Your task to perform on an android device: check battery use Image 0: 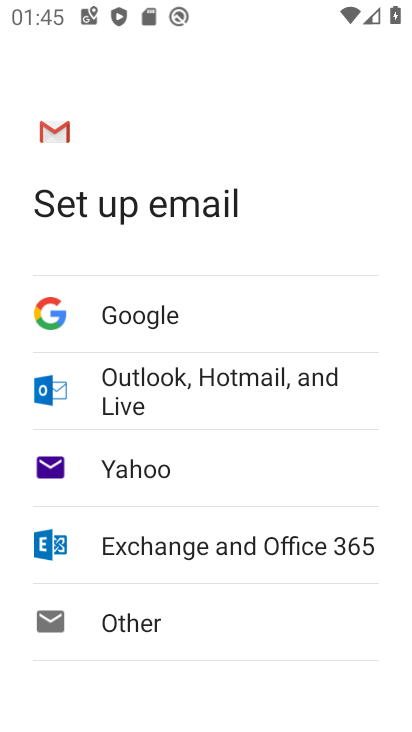
Step 0: press home button
Your task to perform on an android device: check battery use Image 1: 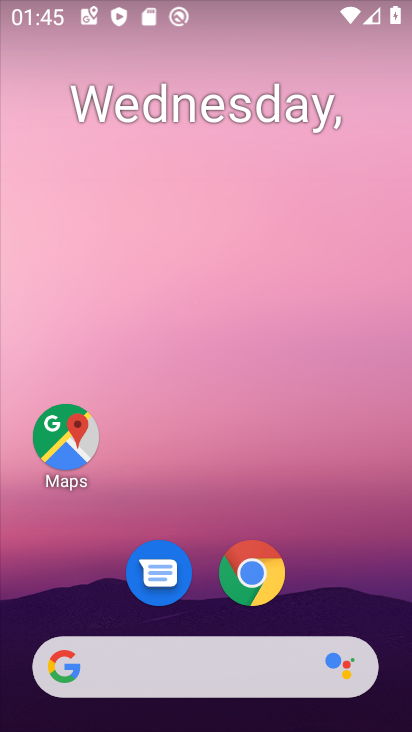
Step 1: drag from (340, 566) to (302, 24)
Your task to perform on an android device: check battery use Image 2: 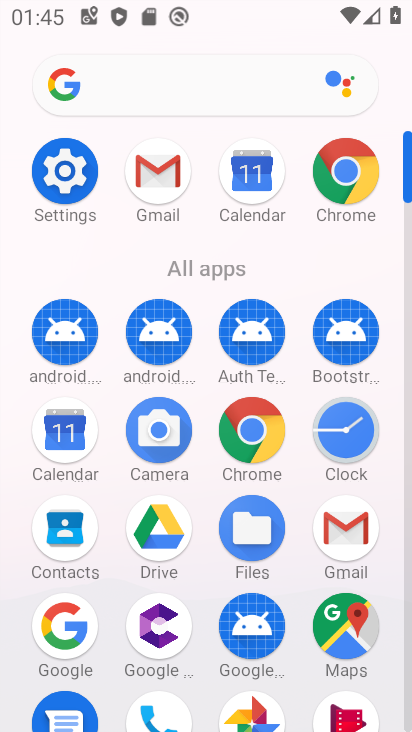
Step 2: click (66, 168)
Your task to perform on an android device: check battery use Image 3: 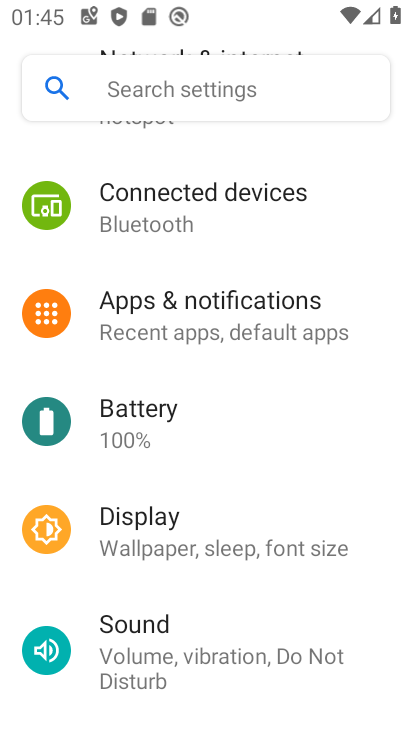
Step 3: click (149, 416)
Your task to perform on an android device: check battery use Image 4: 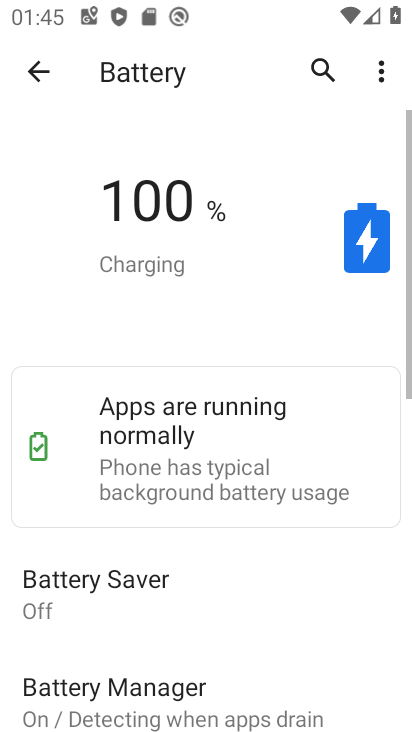
Step 4: click (381, 65)
Your task to perform on an android device: check battery use Image 5: 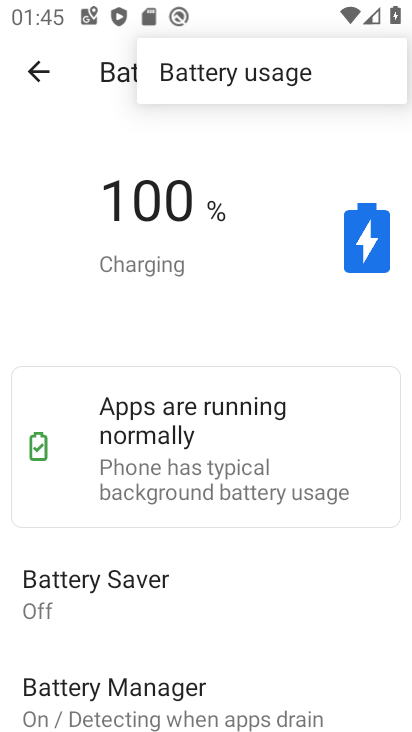
Step 5: click (268, 73)
Your task to perform on an android device: check battery use Image 6: 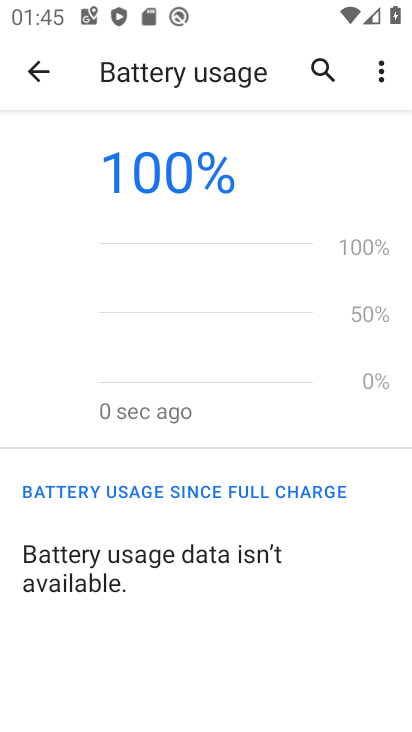
Step 6: task complete